Your task to perform on an android device: Show the shopping cart on walmart. Add "logitech g910" to the cart on walmart, then select checkout. Image 0: 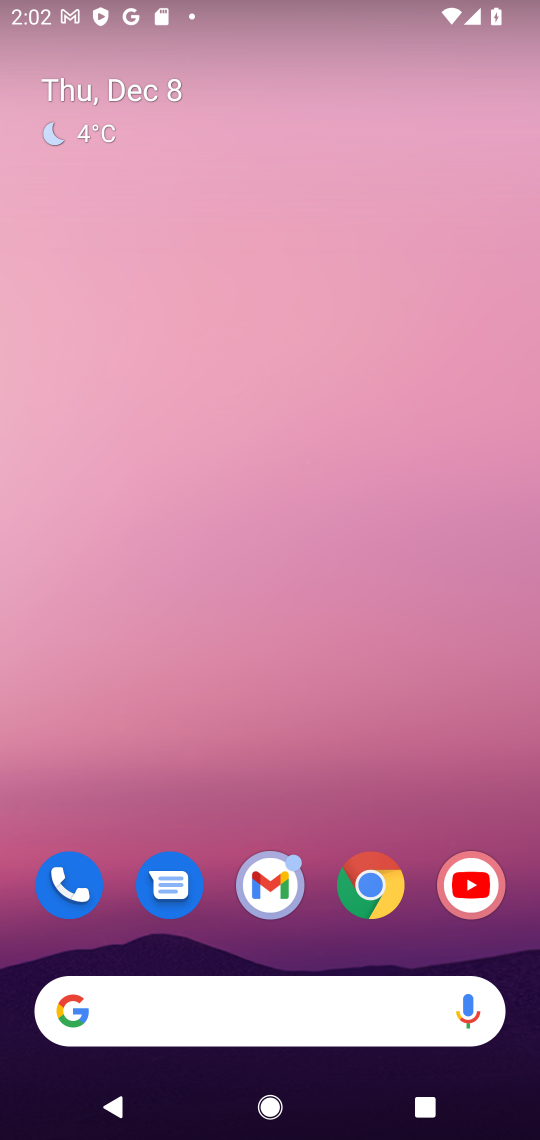
Step 0: click (383, 894)
Your task to perform on an android device: Show the shopping cart on walmart. Add "logitech g910" to the cart on walmart, then select checkout. Image 1: 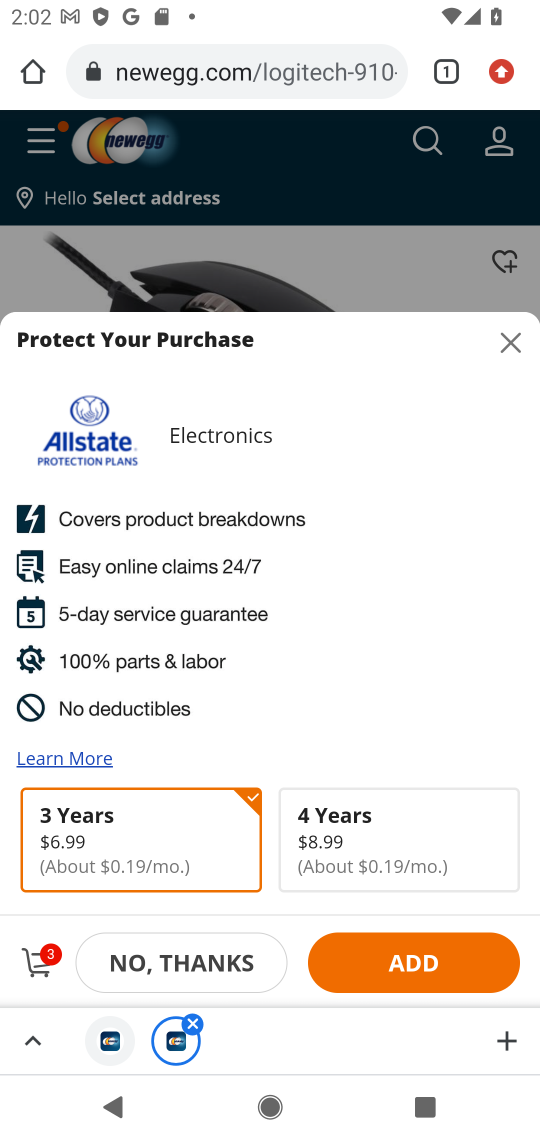
Step 1: click (256, 77)
Your task to perform on an android device: Show the shopping cart on walmart. Add "logitech g910" to the cart on walmart, then select checkout. Image 2: 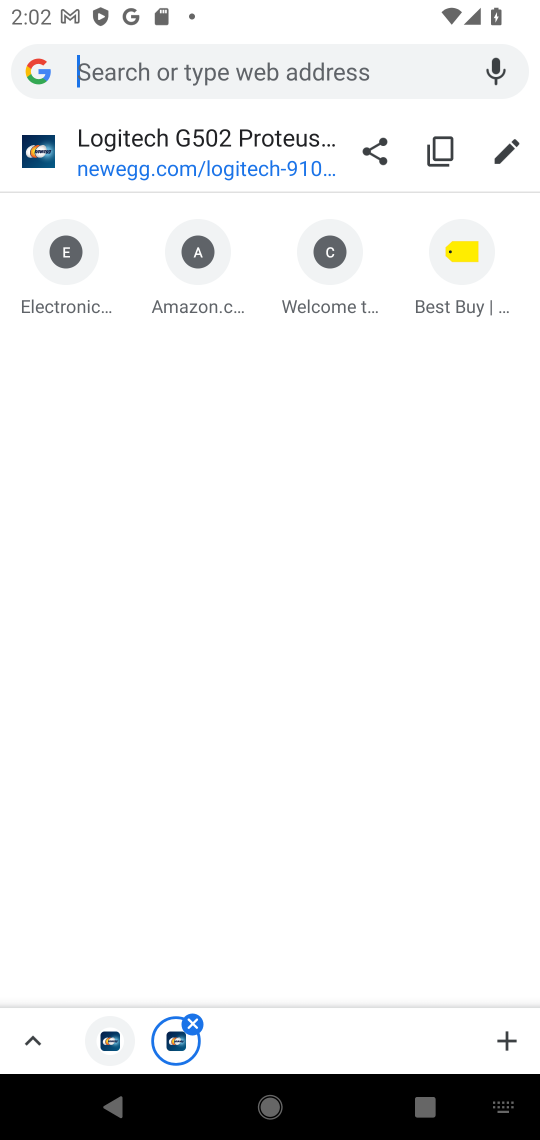
Step 2: type "walmart"
Your task to perform on an android device: Show the shopping cart on walmart. Add "logitech g910" to the cart on walmart, then select checkout. Image 3: 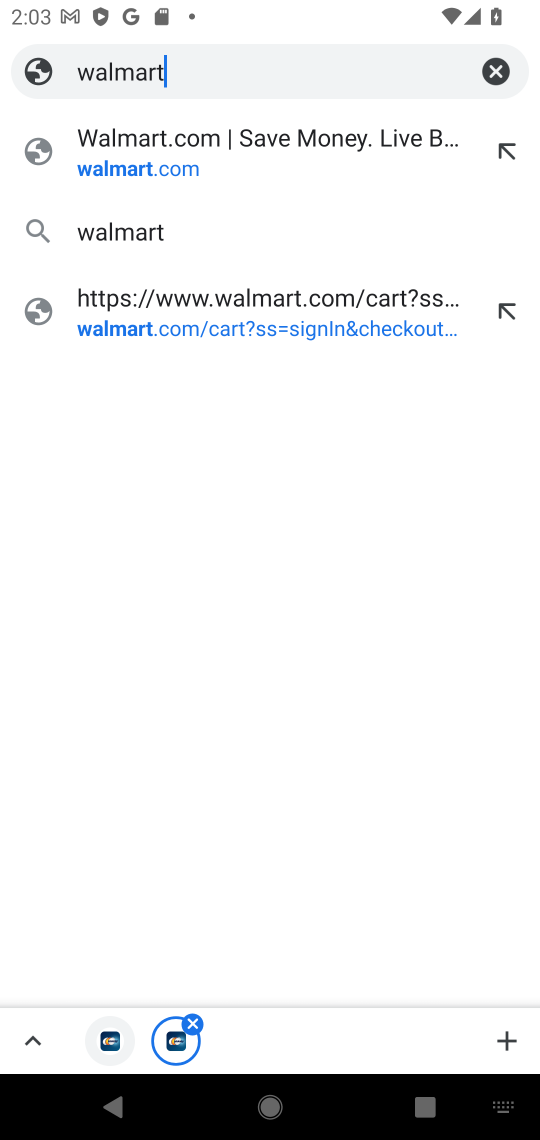
Step 3: click (130, 163)
Your task to perform on an android device: Show the shopping cart on walmart. Add "logitech g910" to the cart on walmart, then select checkout. Image 4: 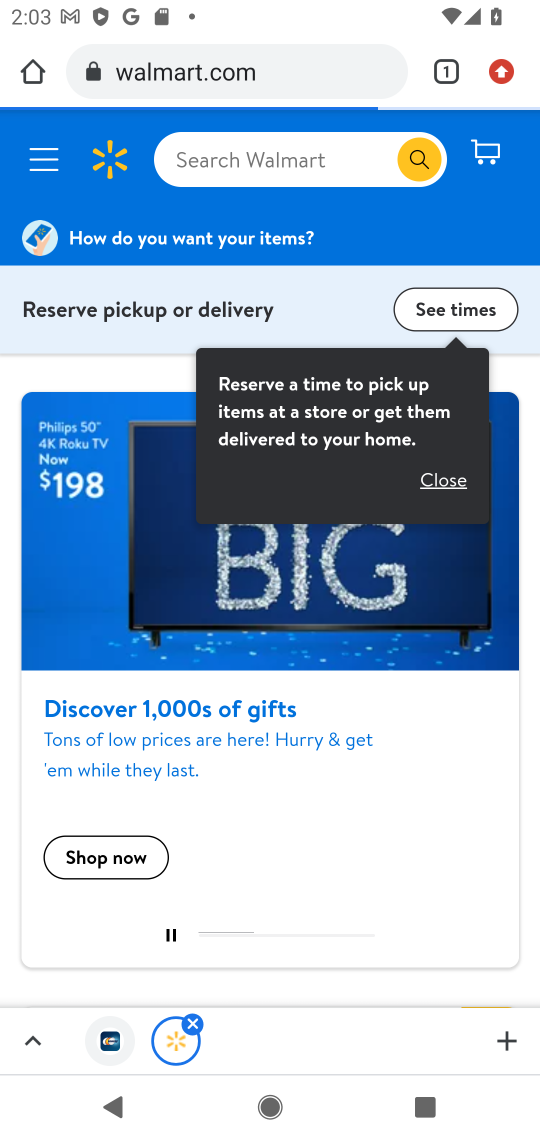
Step 4: click (243, 166)
Your task to perform on an android device: Show the shopping cart on walmart. Add "logitech g910" to the cart on walmart, then select checkout. Image 5: 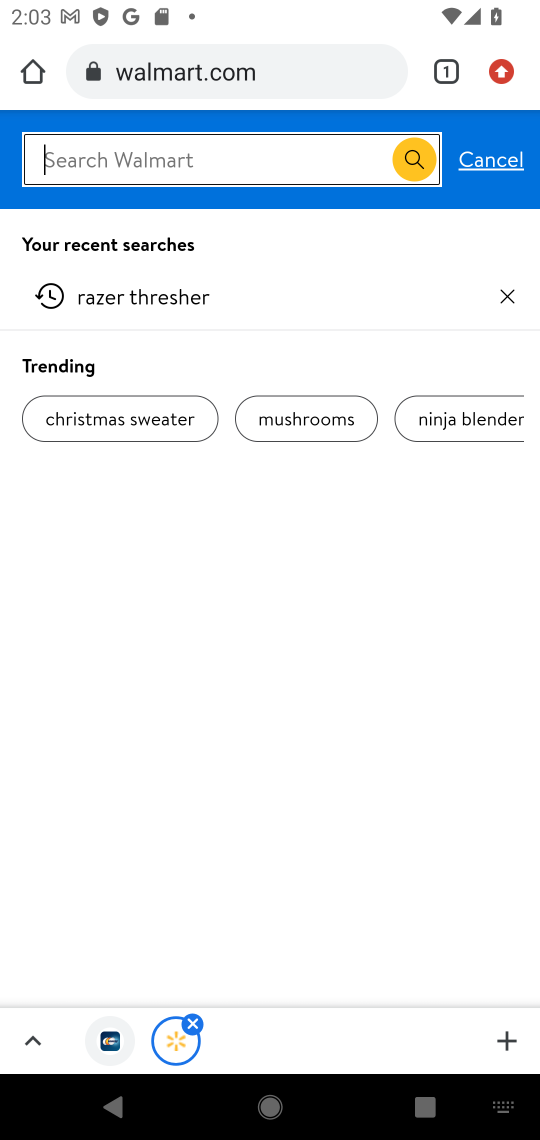
Step 5: type "logitech g910"
Your task to perform on an android device: Show the shopping cart on walmart. Add "logitech g910" to the cart on walmart, then select checkout. Image 6: 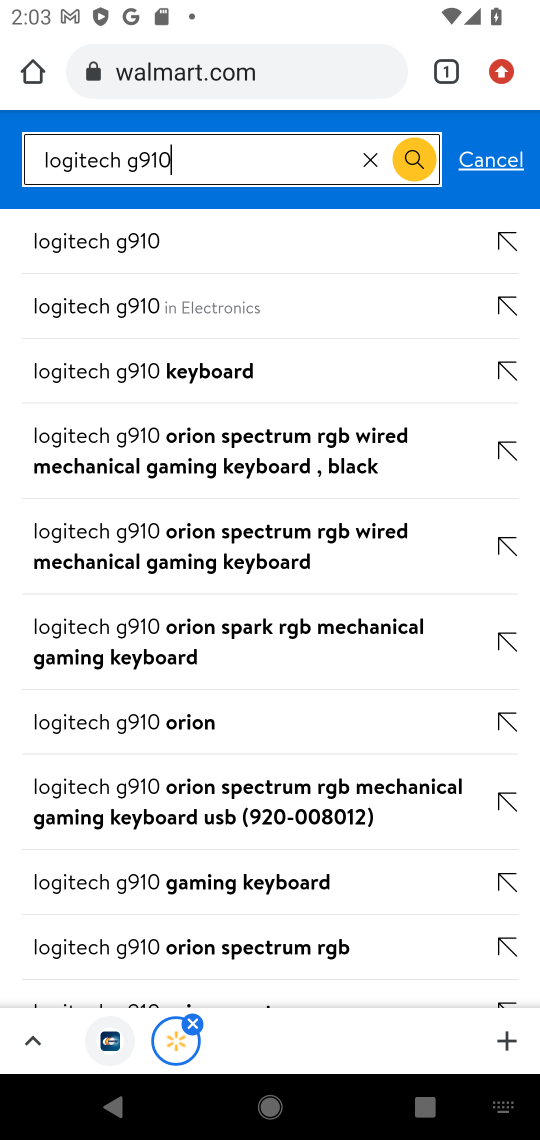
Step 6: click (164, 242)
Your task to perform on an android device: Show the shopping cart on walmart. Add "logitech g910" to the cart on walmart, then select checkout. Image 7: 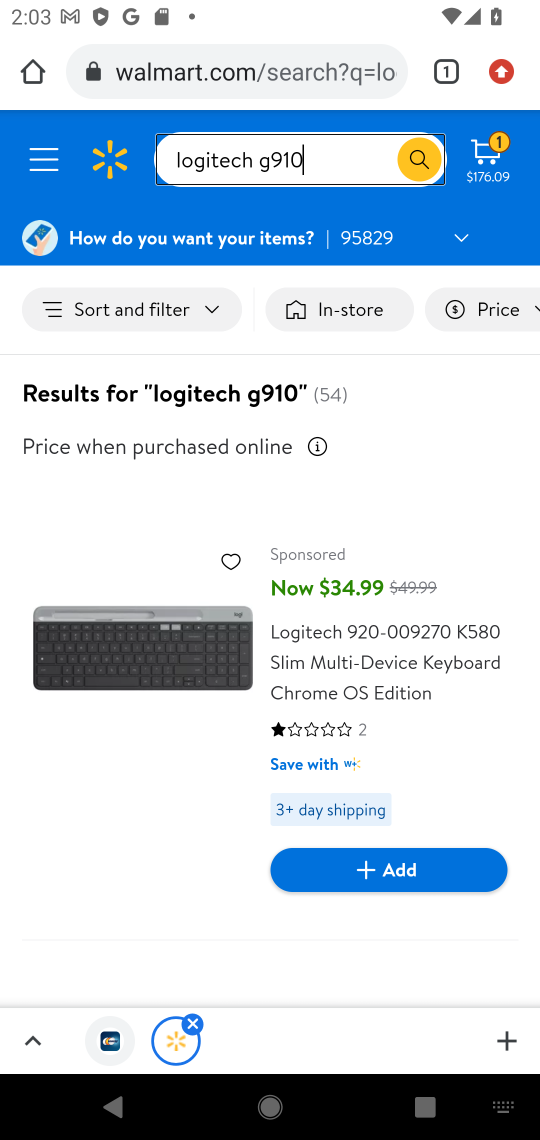
Step 7: click (413, 874)
Your task to perform on an android device: Show the shopping cart on walmart. Add "logitech g910" to the cart on walmart, then select checkout. Image 8: 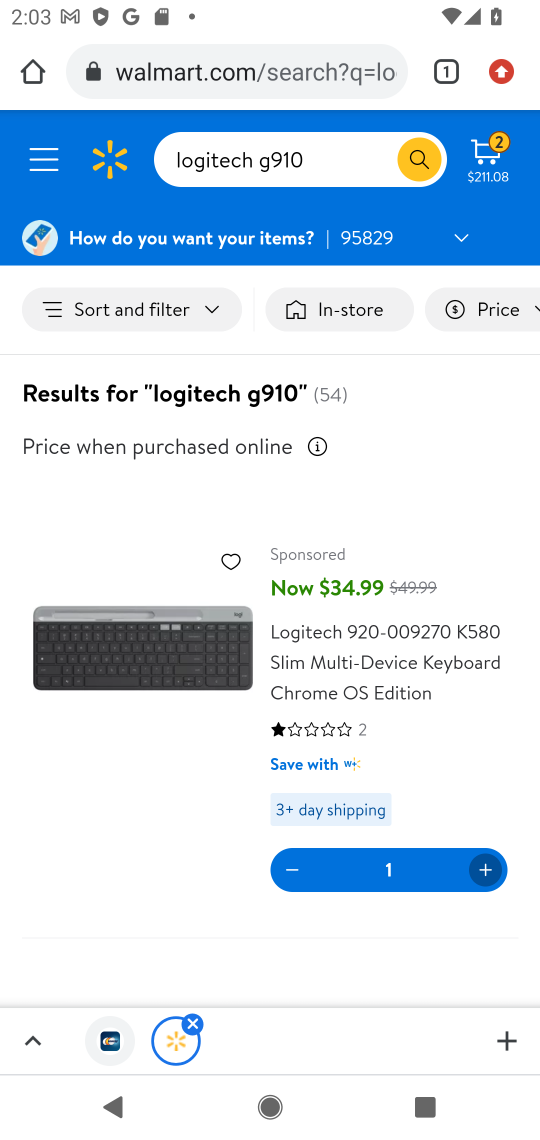
Step 8: click (495, 150)
Your task to perform on an android device: Show the shopping cart on walmart. Add "logitech g910" to the cart on walmart, then select checkout. Image 9: 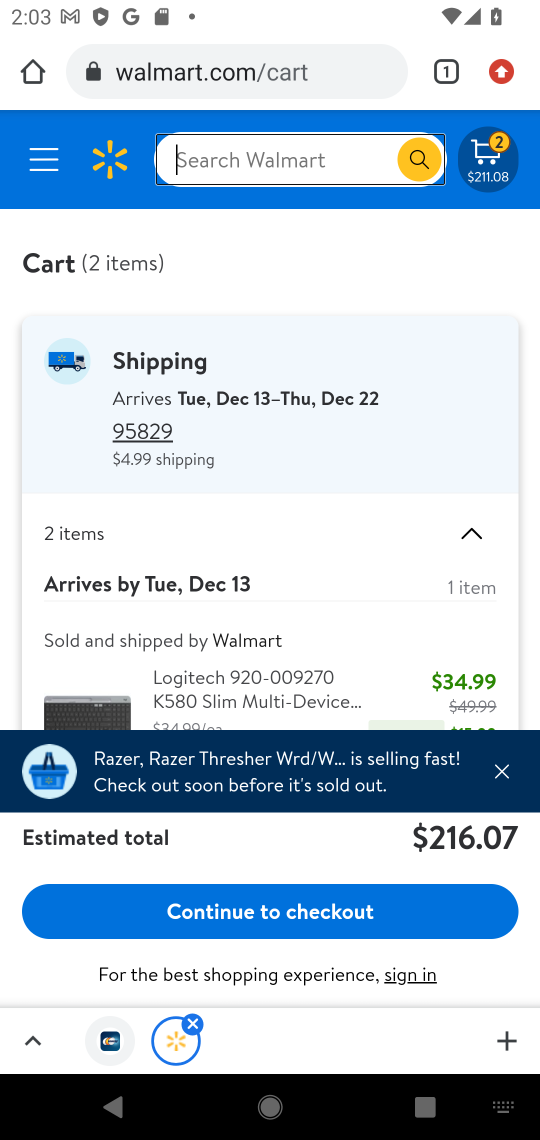
Step 9: click (251, 918)
Your task to perform on an android device: Show the shopping cart on walmart. Add "logitech g910" to the cart on walmart, then select checkout. Image 10: 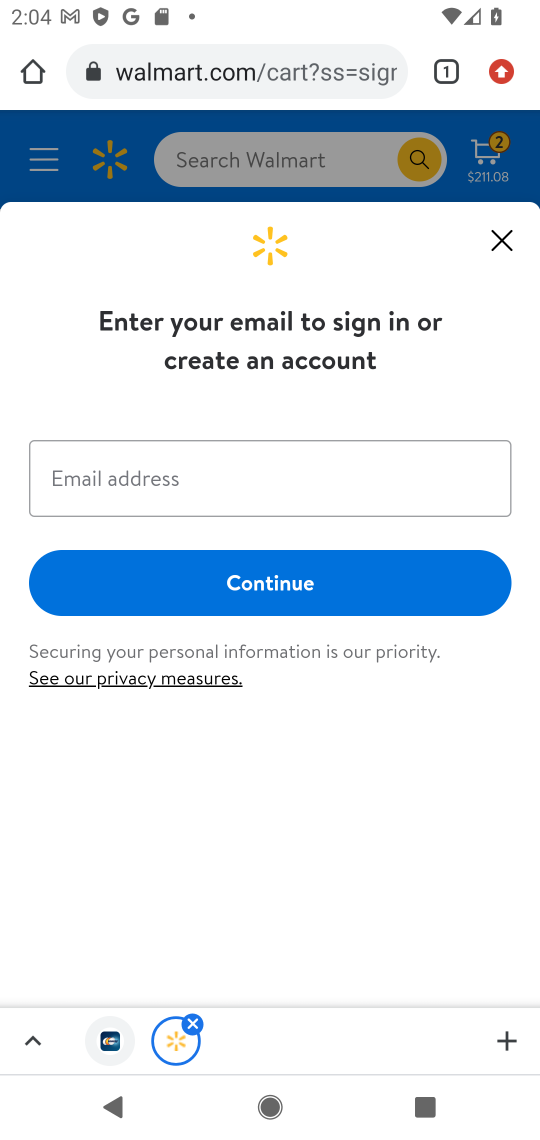
Step 10: task complete